Your task to perform on an android device: Clear the cart on ebay. Add macbook pro 13 inch to the cart on ebay, then select checkout. Image 0: 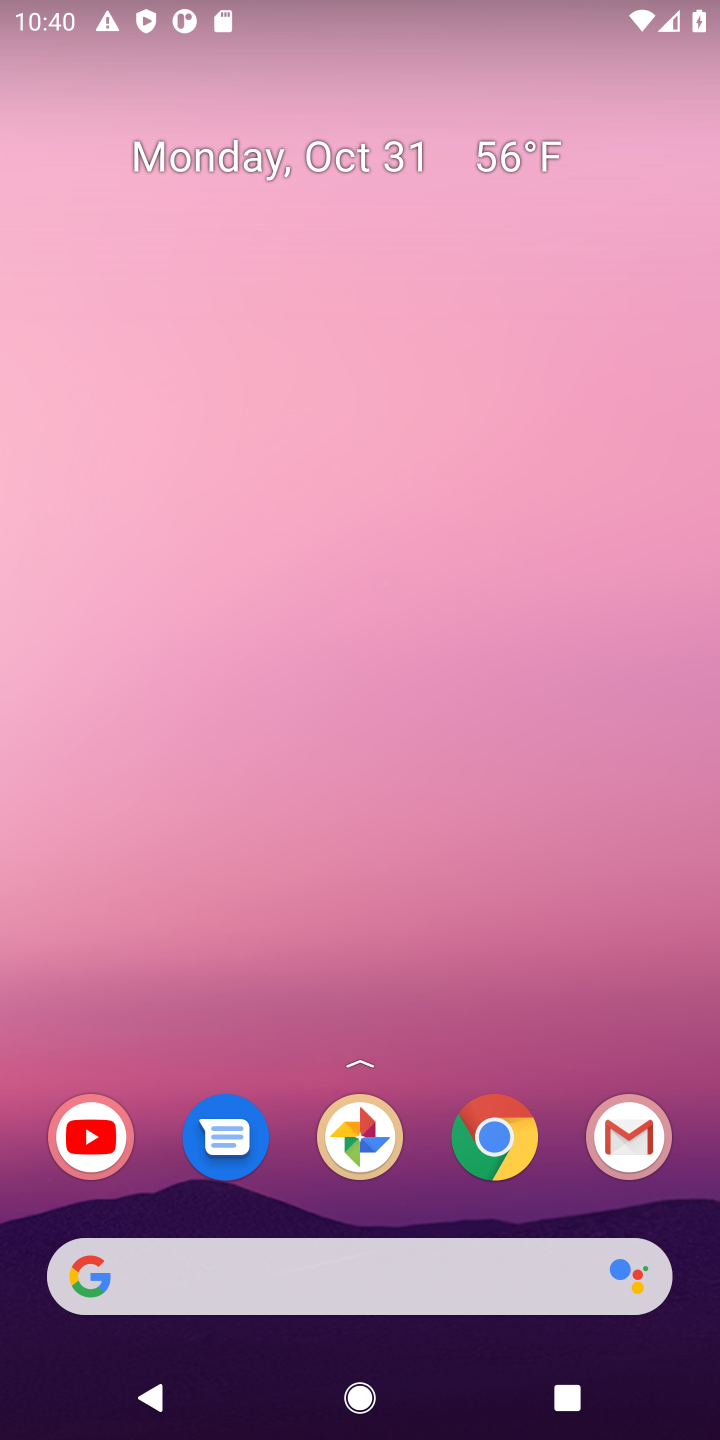
Step 0: click (492, 1137)
Your task to perform on an android device: Clear the cart on ebay. Add macbook pro 13 inch to the cart on ebay, then select checkout. Image 1: 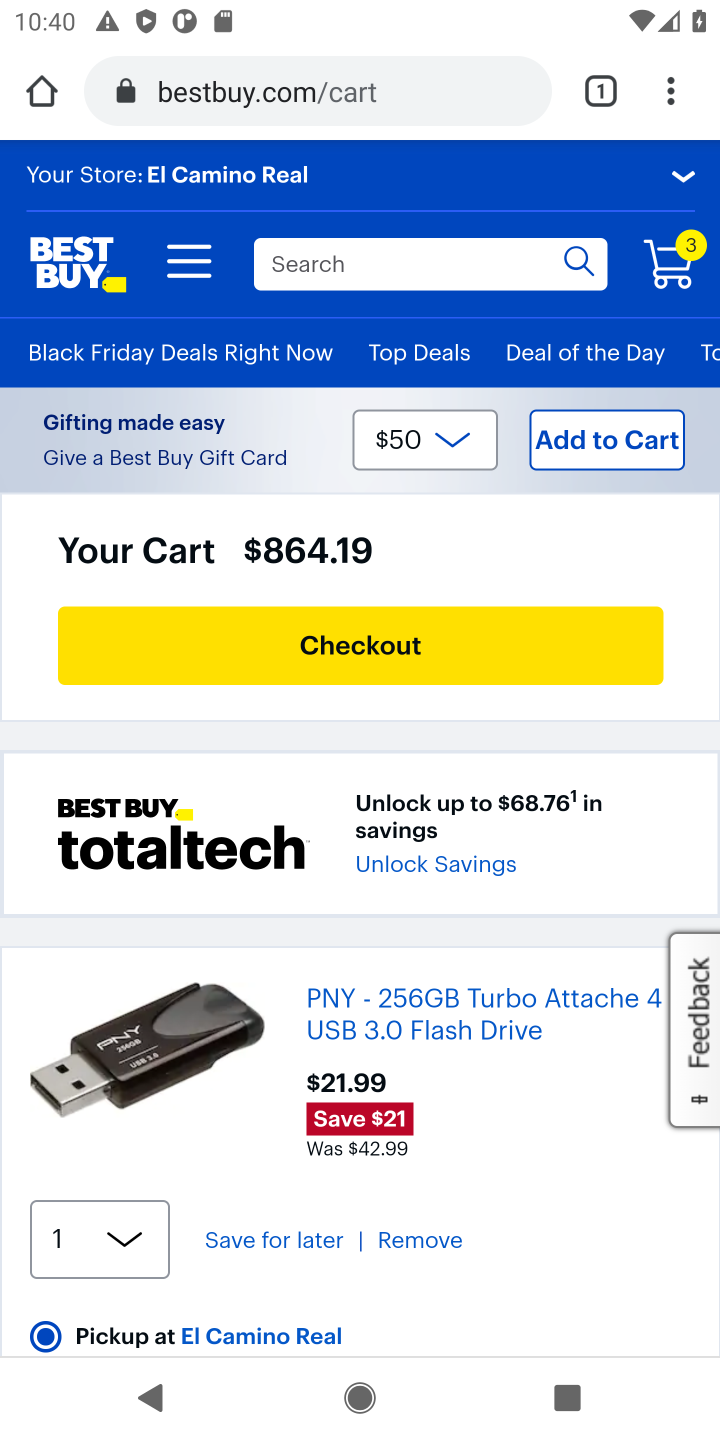
Step 1: click (347, 83)
Your task to perform on an android device: Clear the cart on ebay. Add macbook pro 13 inch to the cart on ebay, then select checkout. Image 2: 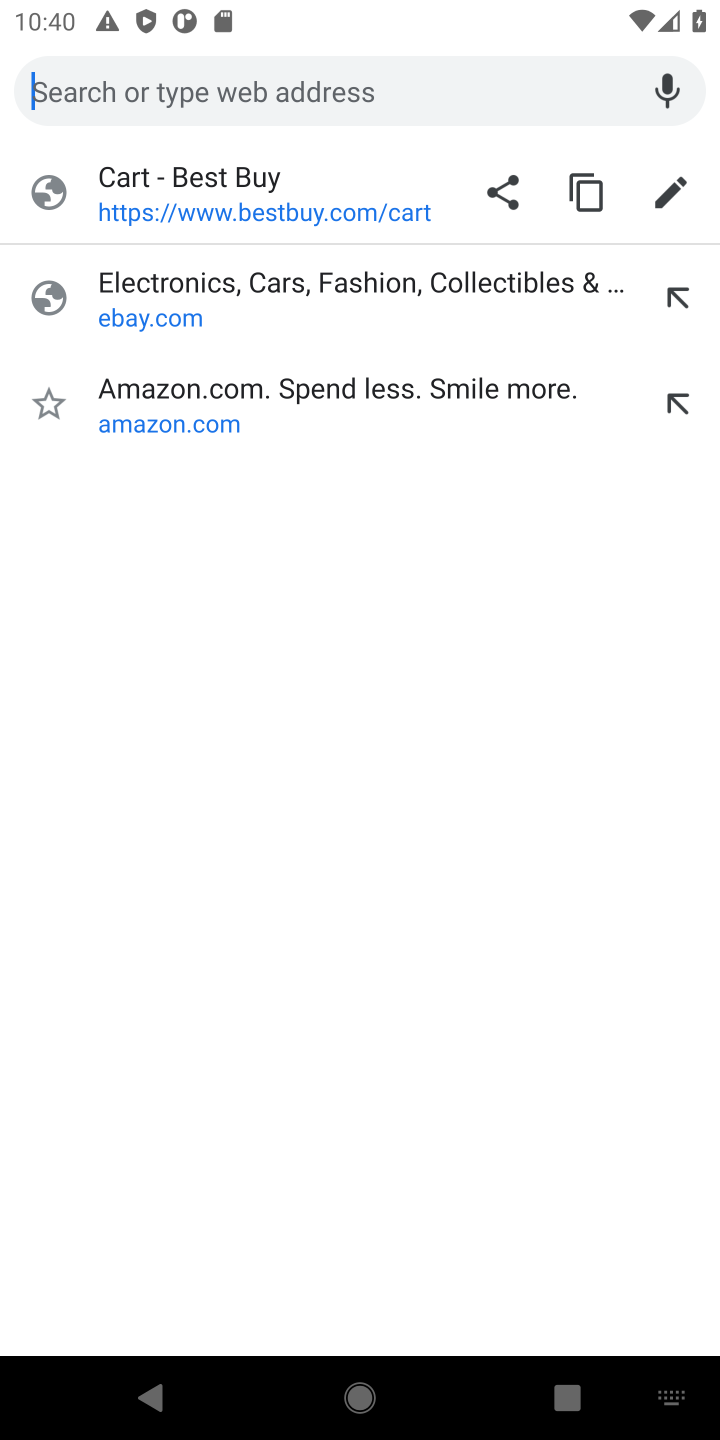
Step 2: type "ebay"
Your task to perform on an android device: Clear the cart on ebay. Add macbook pro 13 inch to the cart on ebay, then select checkout. Image 3: 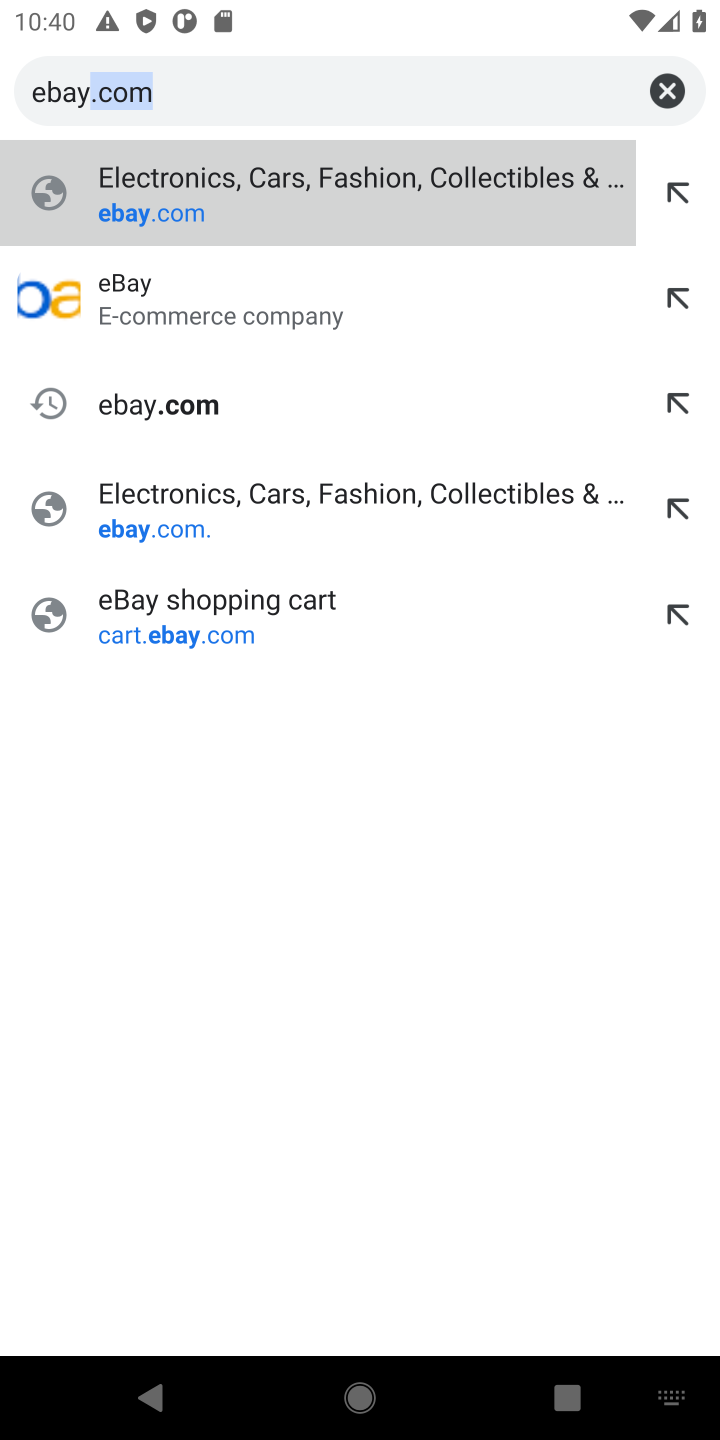
Step 3: click (205, 321)
Your task to perform on an android device: Clear the cart on ebay. Add macbook pro 13 inch to the cart on ebay, then select checkout. Image 4: 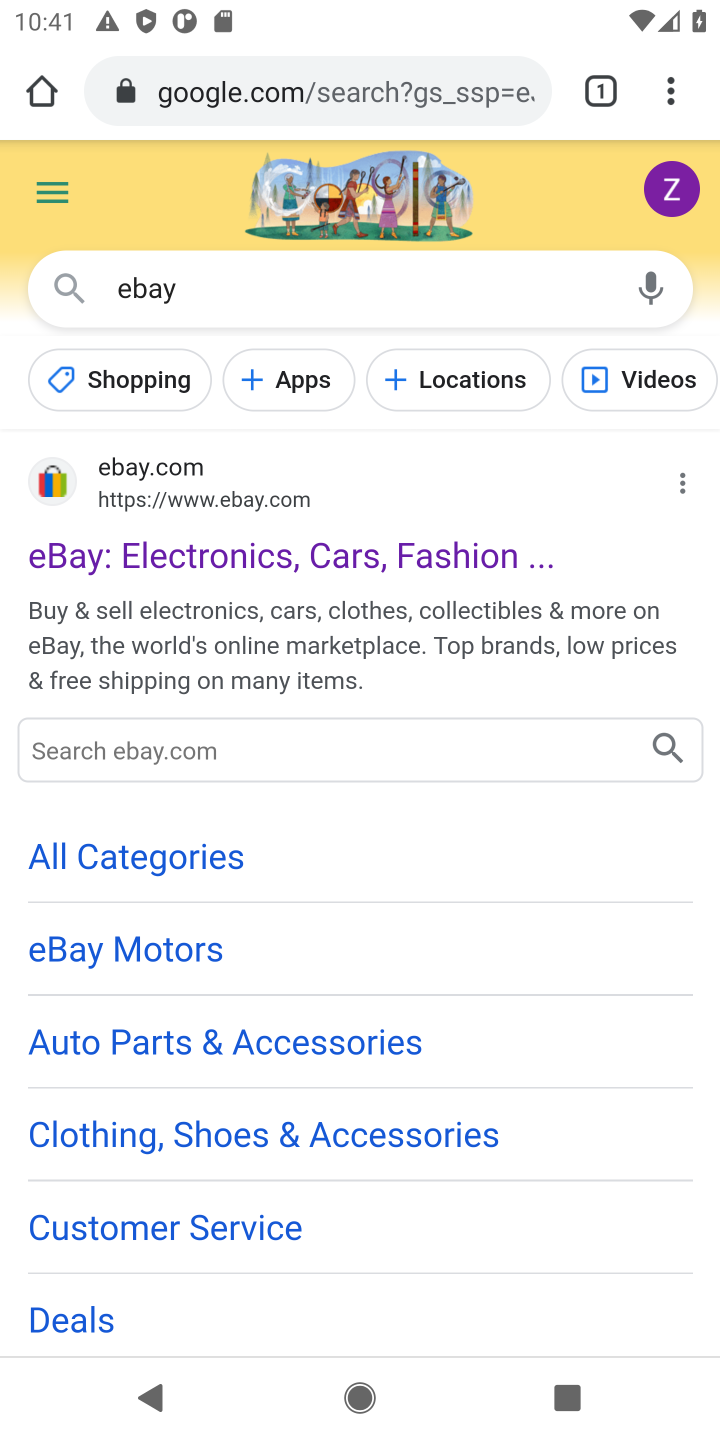
Step 4: click (140, 554)
Your task to perform on an android device: Clear the cart on ebay. Add macbook pro 13 inch to the cart on ebay, then select checkout. Image 5: 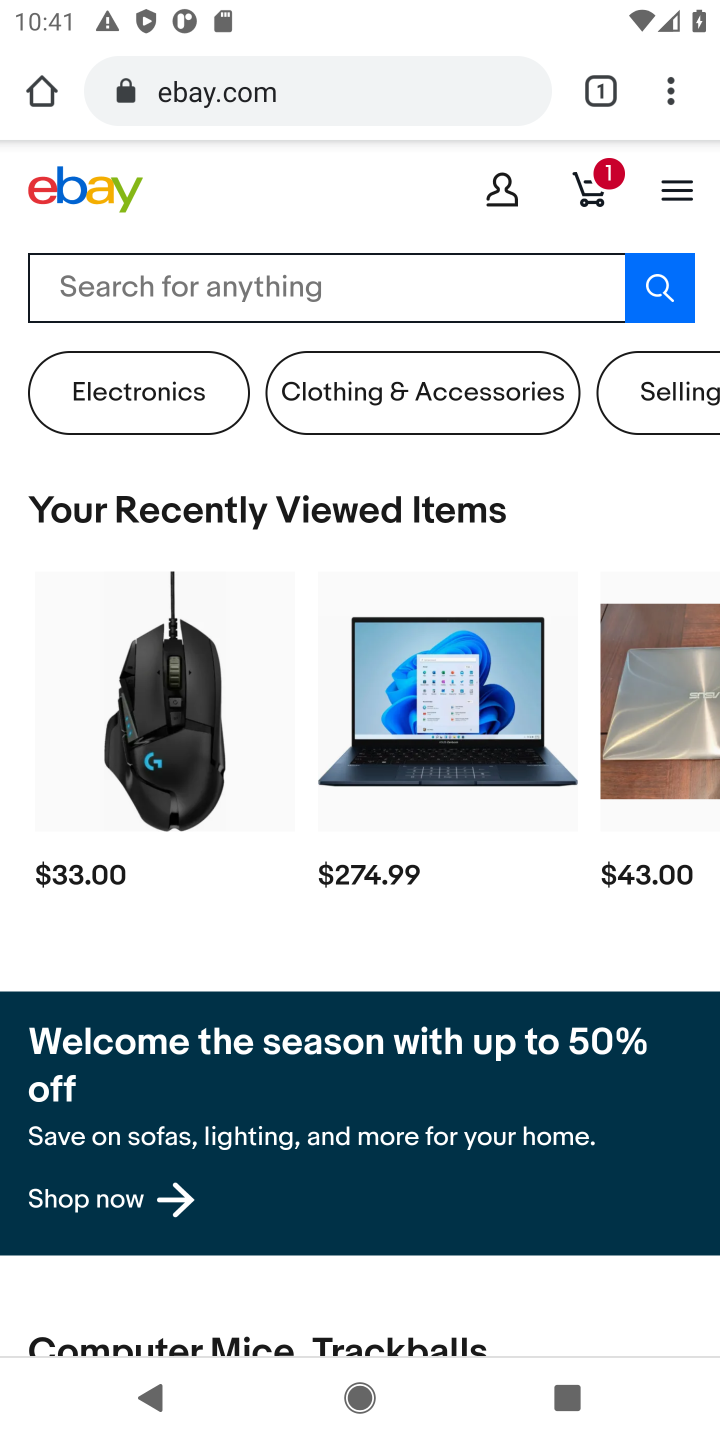
Step 5: click (595, 195)
Your task to perform on an android device: Clear the cart on ebay. Add macbook pro 13 inch to the cart on ebay, then select checkout. Image 6: 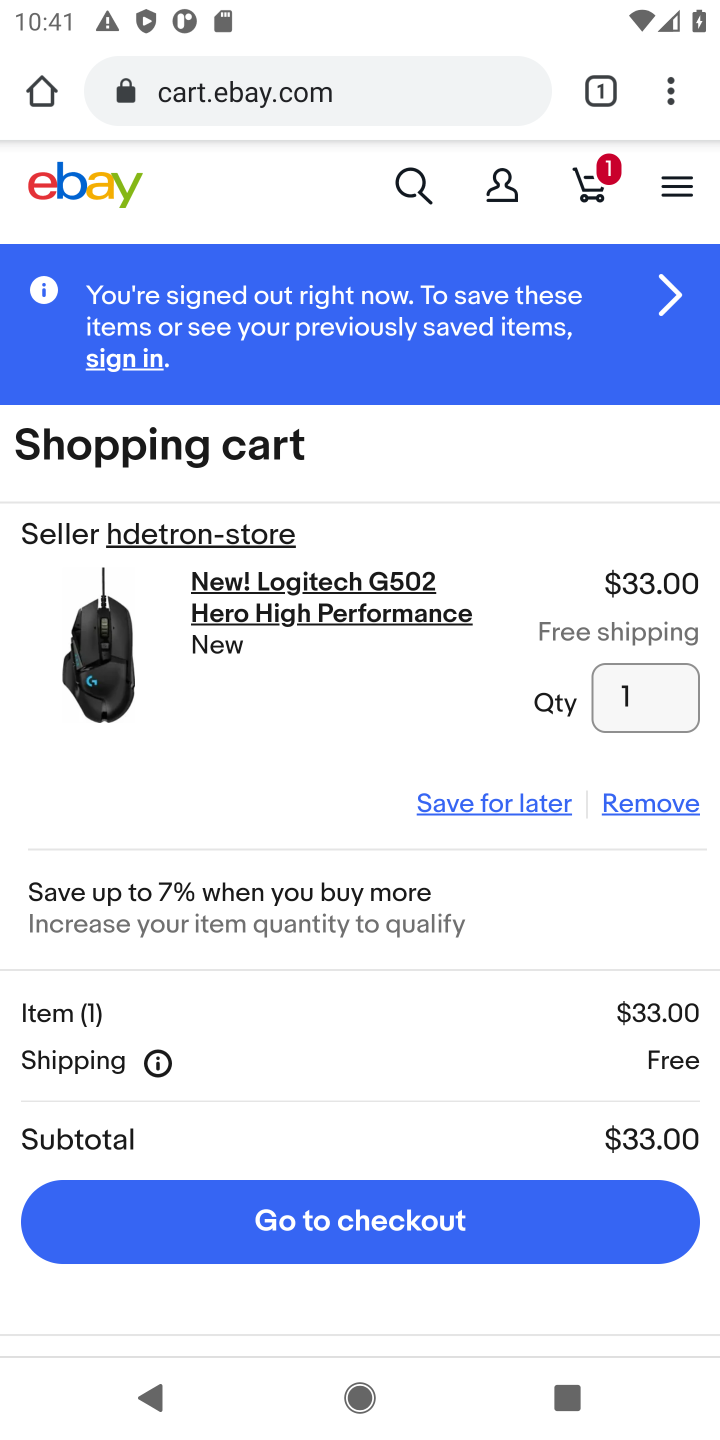
Step 6: click (637, 802)
Your task to perform on an android device: Clear the cart on ebay. Add macbook pro 13 inch to the cart on ebay, then select checkout. Image 7: 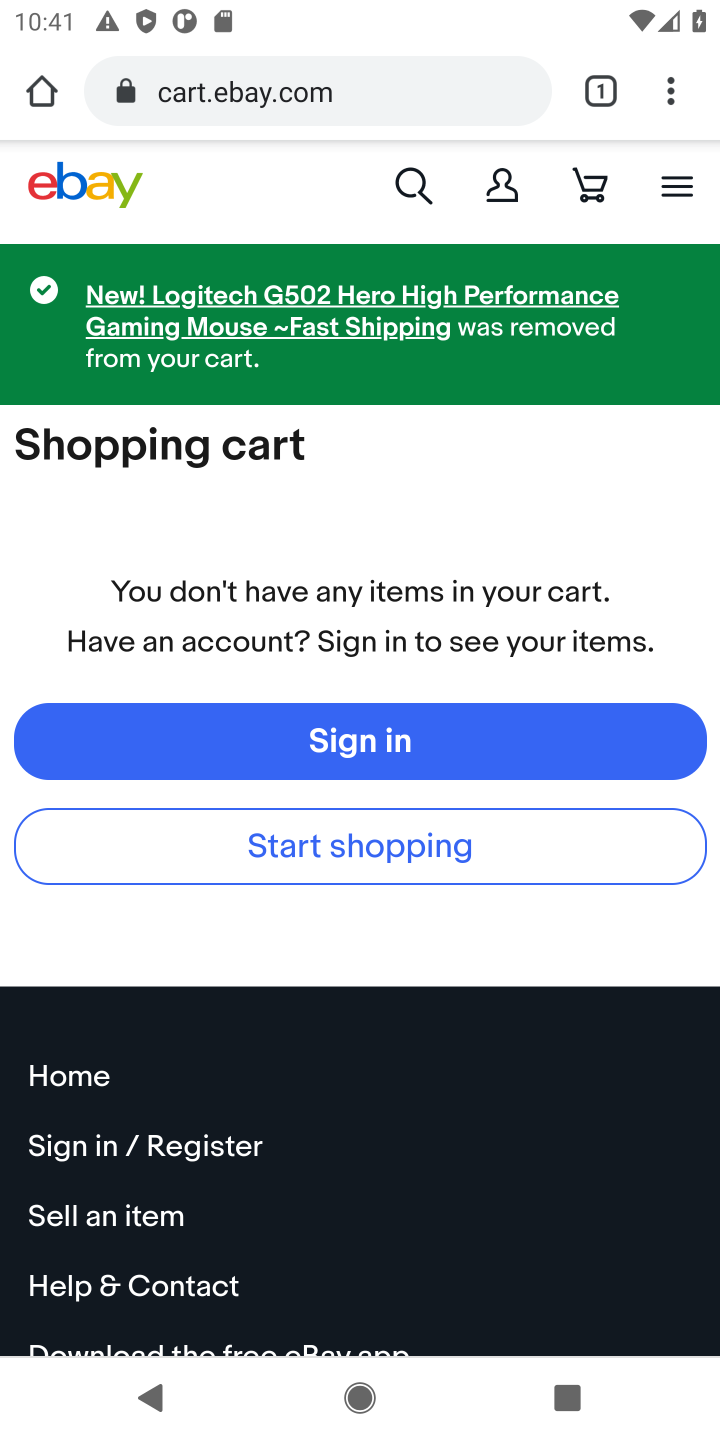
Step 7: click (409, 178)
Your task to perform on an android device: Clear the cart on ebay. Add macbook pro 13 inch to the cart on ebay, then select checkout. Image 8: 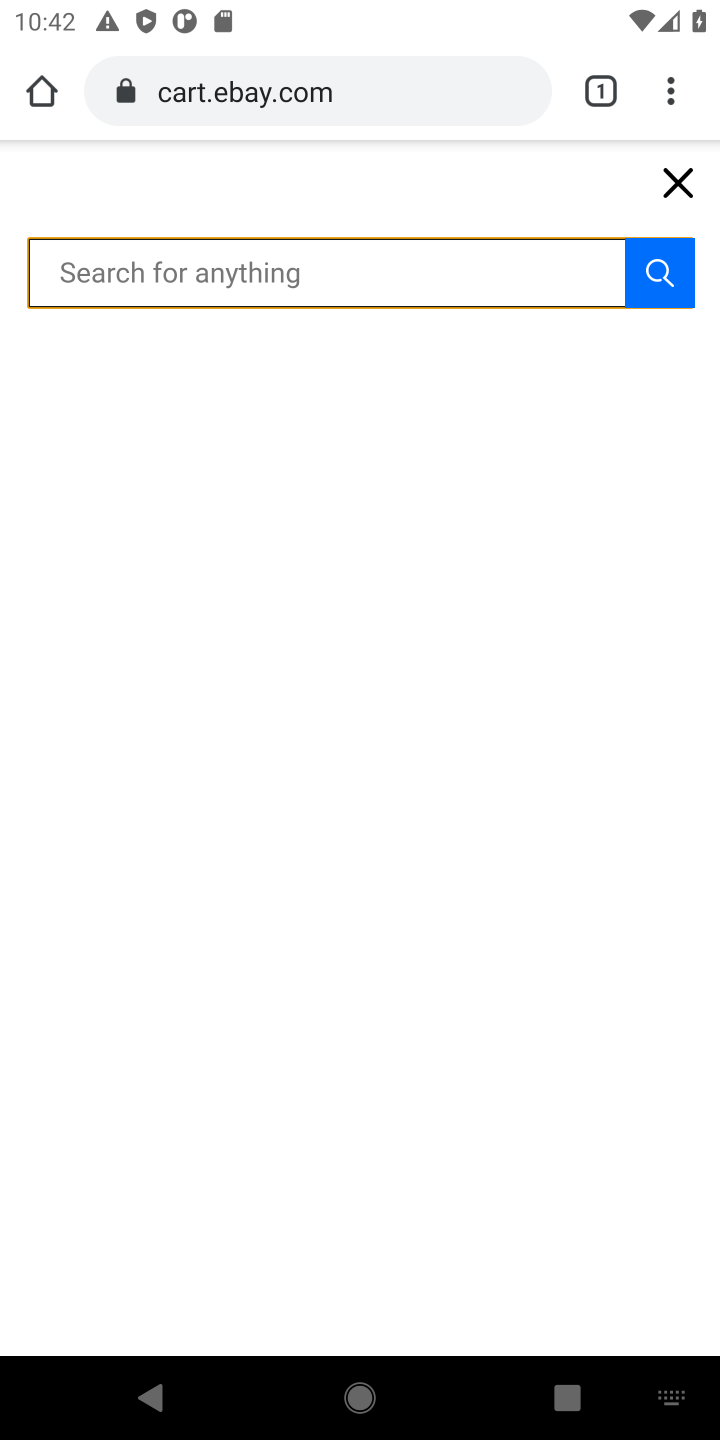
Step 8: type "macbook pro 13 inch"
Your task to perform on an android device: Clear the cart on ebay. Add macbook pro 13 inch to the cart on ebay, then select checkout. Image 9: 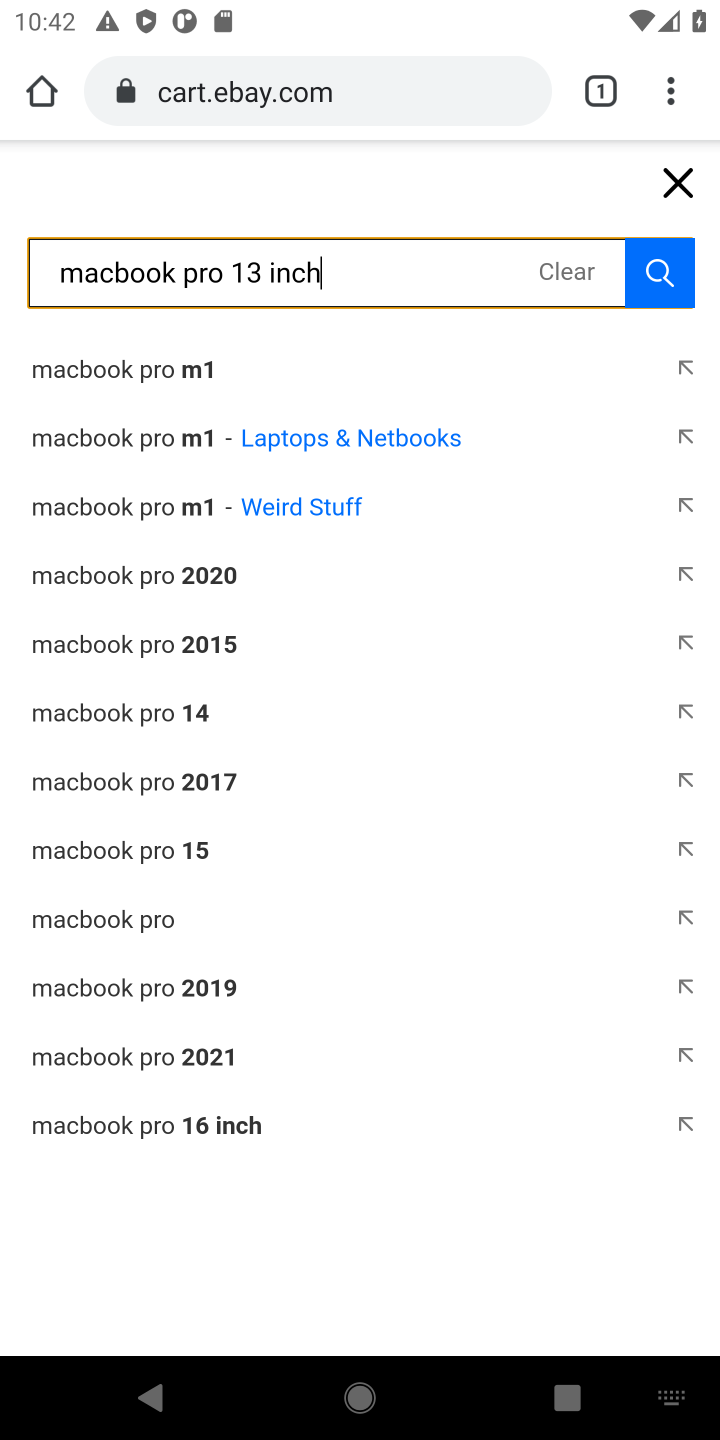
Step 9: click (654, 282)
Your task to perform on an android device: Clear the cart on ebay. Add macbook pro 13 inch to the cart on ebay, then select checkout. Image 10: 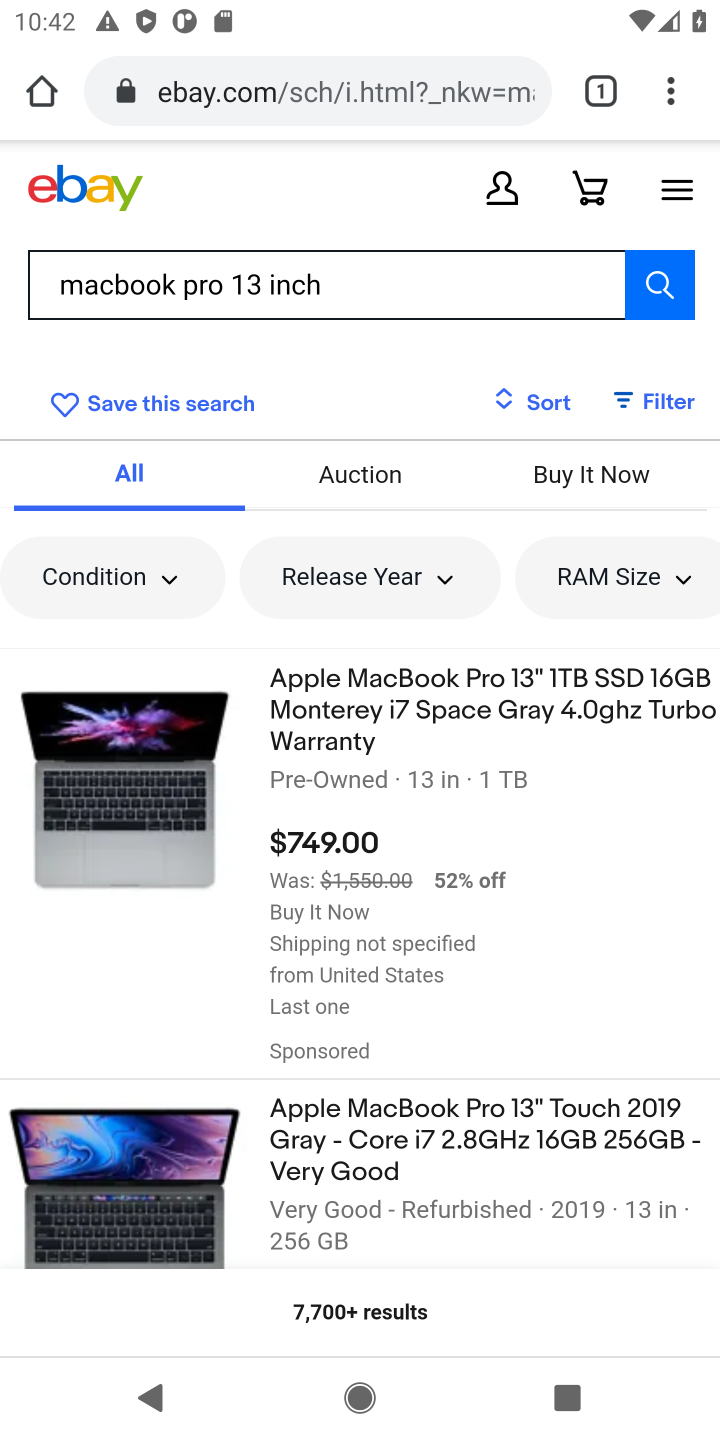
Step 10: click (398, 705)
Your task to perform on an android device: Clear the cart on ebay. Add macbook pro 13 inch to the cart on ebay, then select checkout. Image 11: 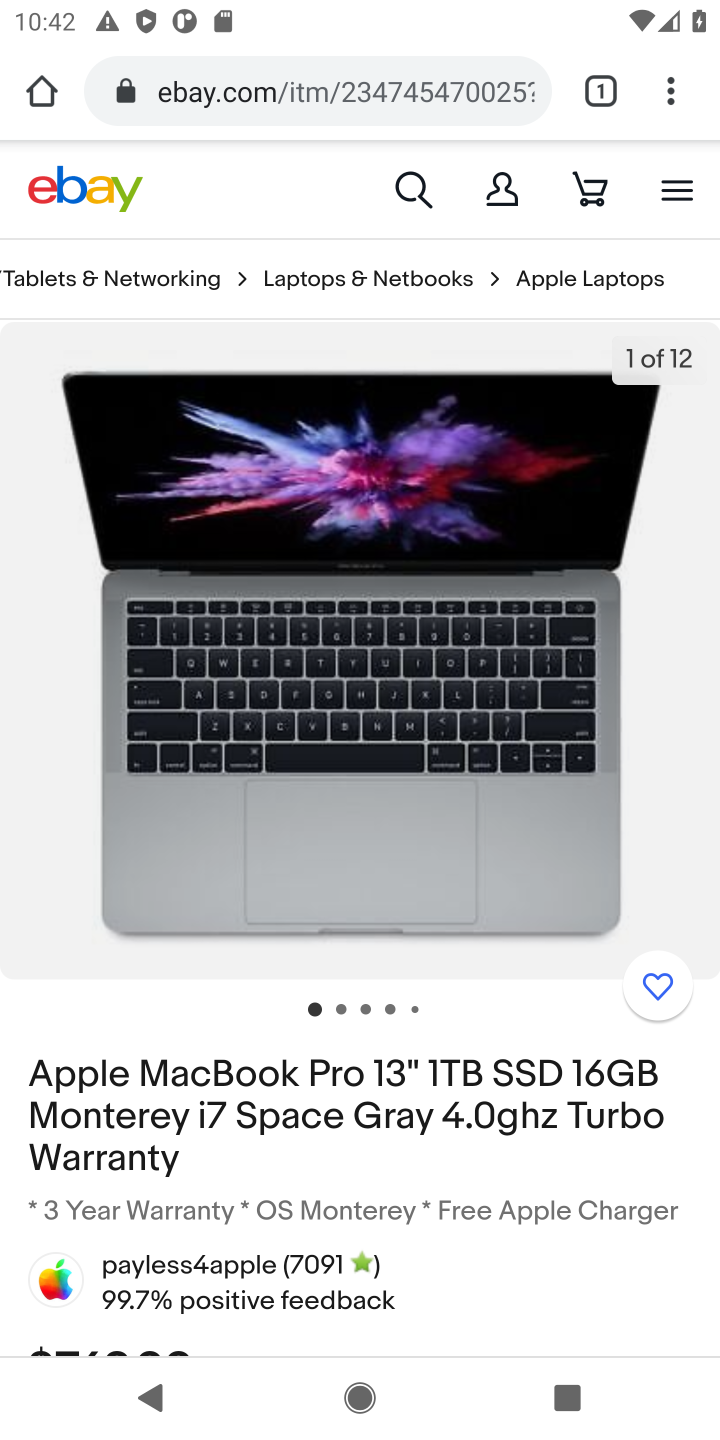
Step 11: drag from (456, 1082) to (507, 472)
Your task to perform on an android device: Clear the cart on ebay. Add macbook pro 13 inch to the cart on ebay, then select checkout. Image 12: 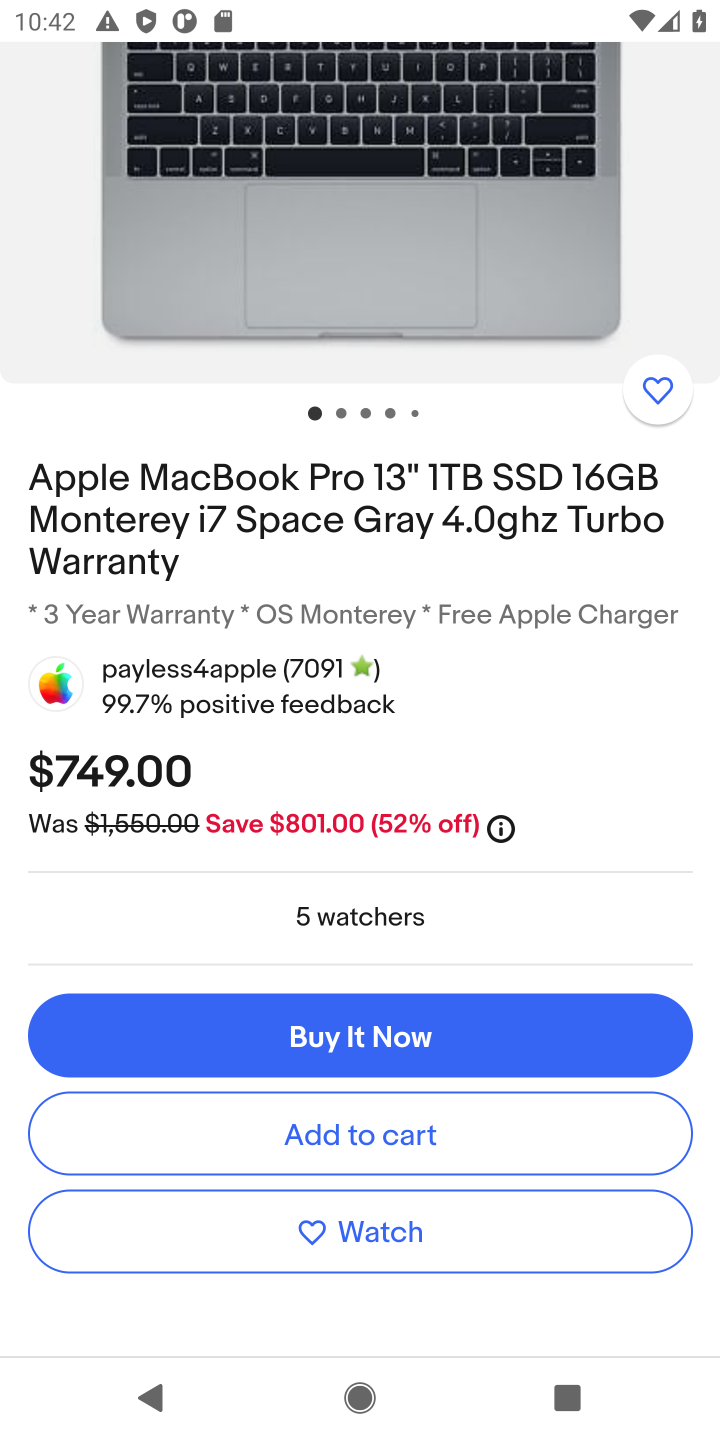
Step 12: click (372, 1143)
Your task to perform on an android device: Clear the cart on ebay. Add macbook pro 13 inch to the cart on ebay, then select checkout. Image 13: 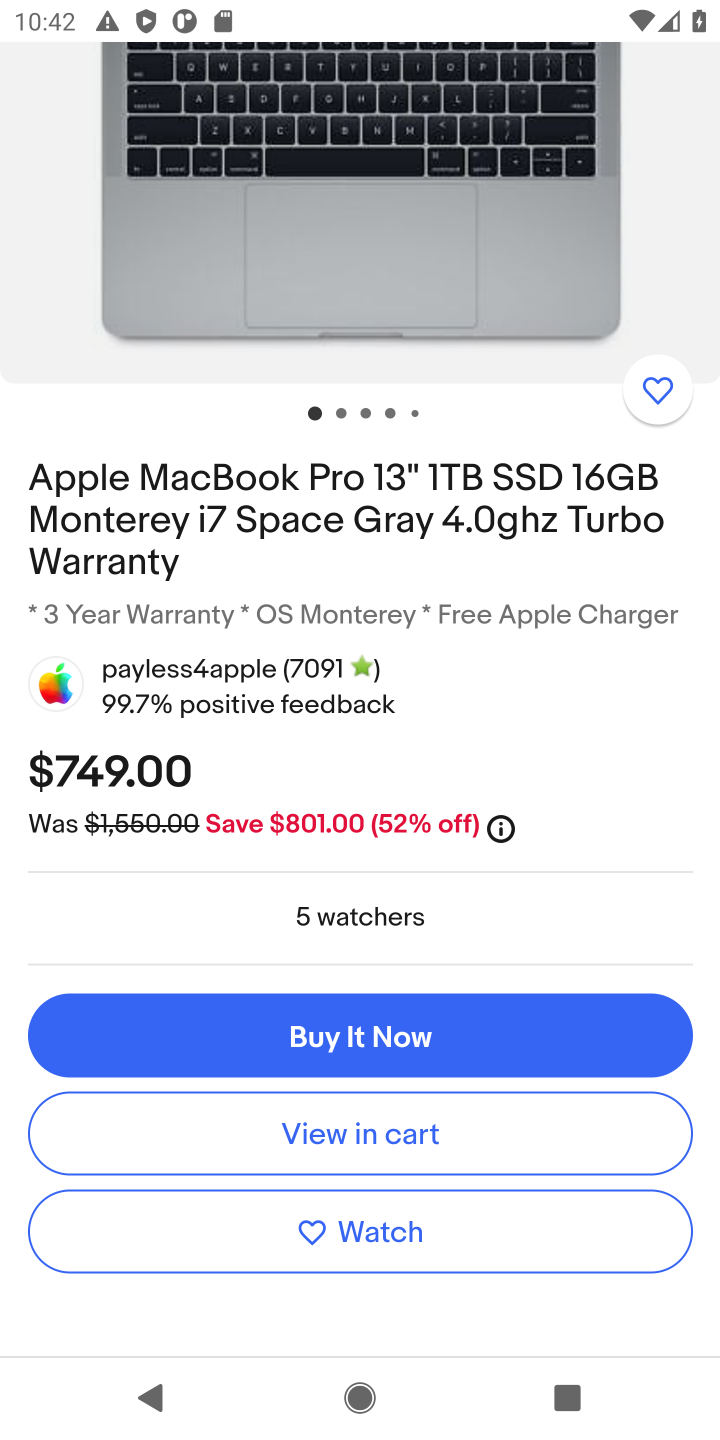
Step 13: click (372, 1143)
Your task to perform on an android device: Clear the cart on ebay. Add macbook pro 13 inch to the cart on ebay, then select checkout. Image 14: 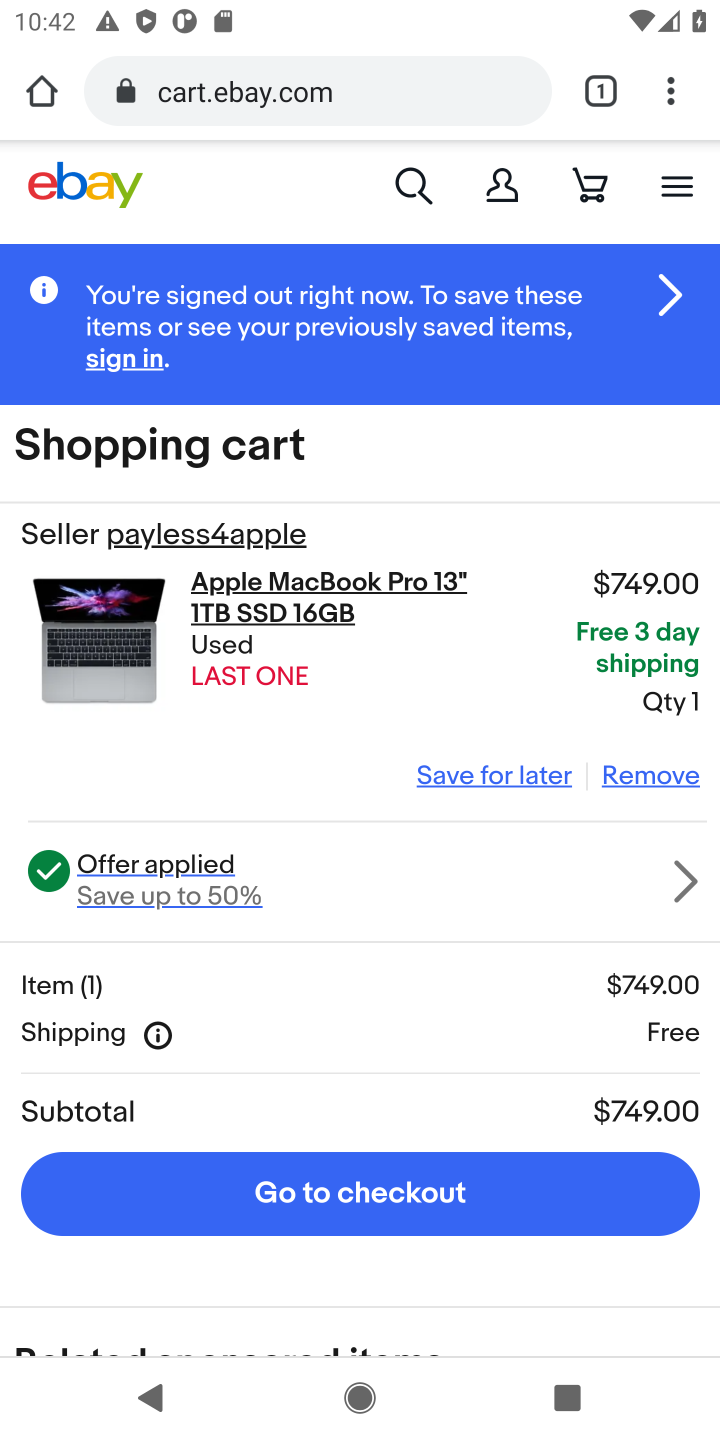
Step 14: click (385, 1195)
Your task to perform on an android device: Clear the cart on ebay. Add macbook pro 13 inch to the cart on ebay, then select checkout. Image 15: 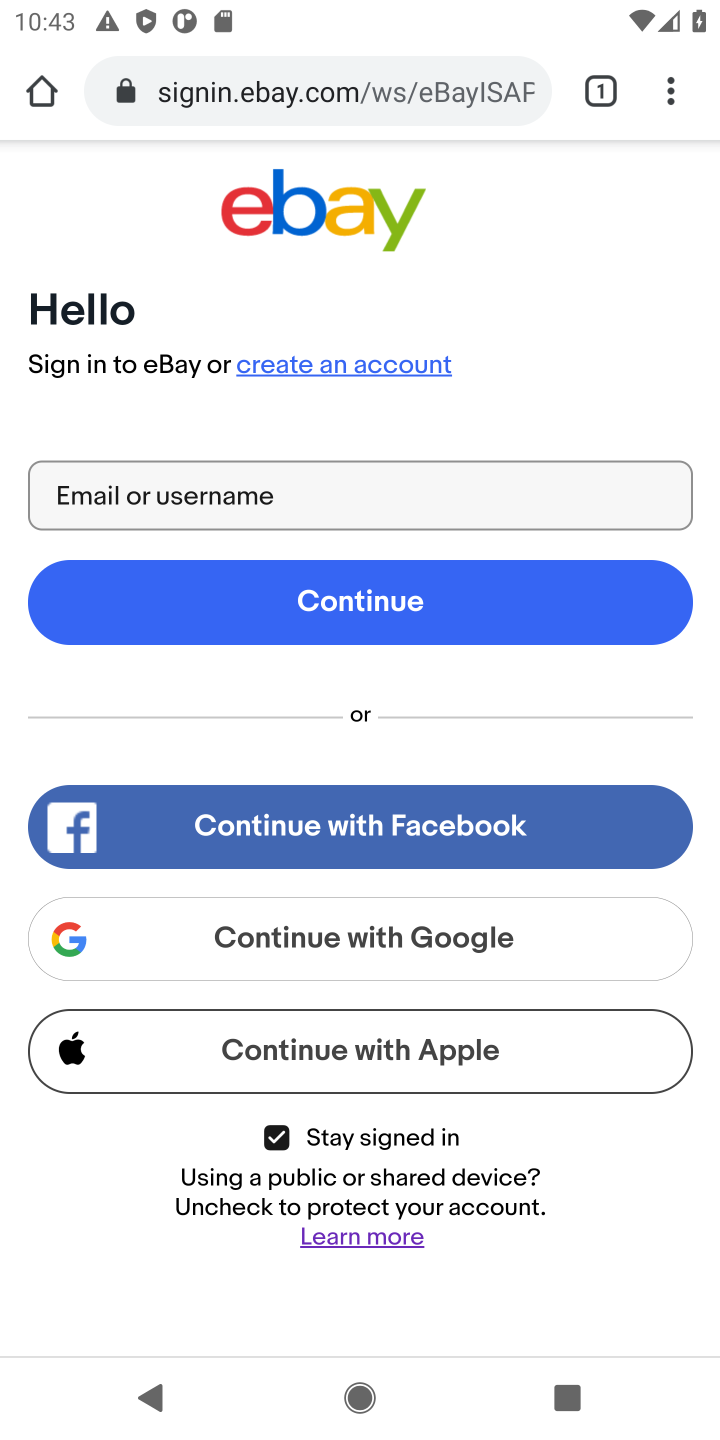
Step 15: task complete